Your task to perform on an android device: Go to Google maps Image 0: 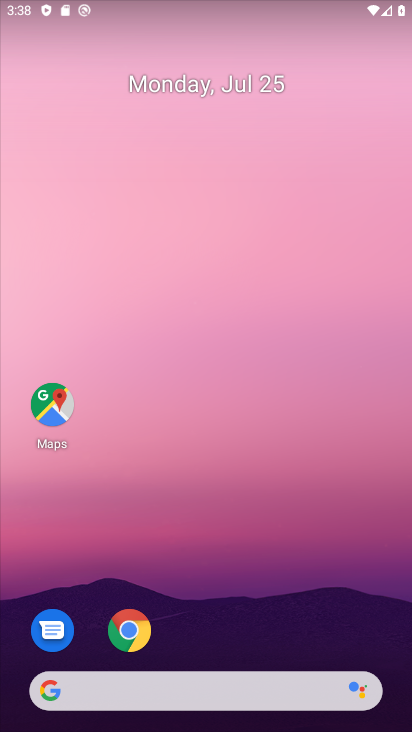
Step 0: drag from (229, 629) to (198, 108)
Your task to perform on an android device: Go to Google maps Image 1: 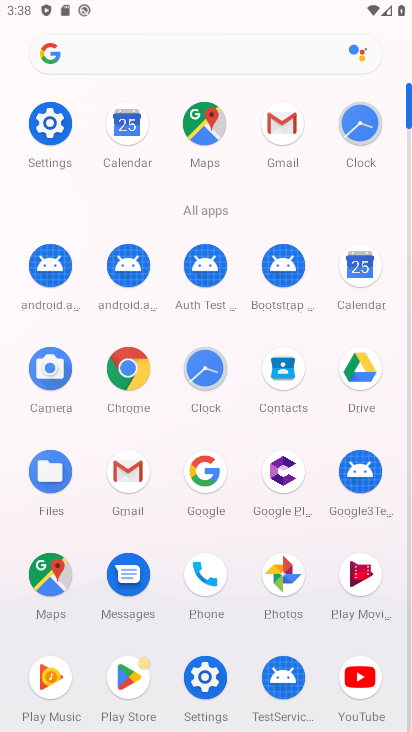
Step 1: click (196, 129)
Your task to perform on an android device: Go to Google maps Image 2: 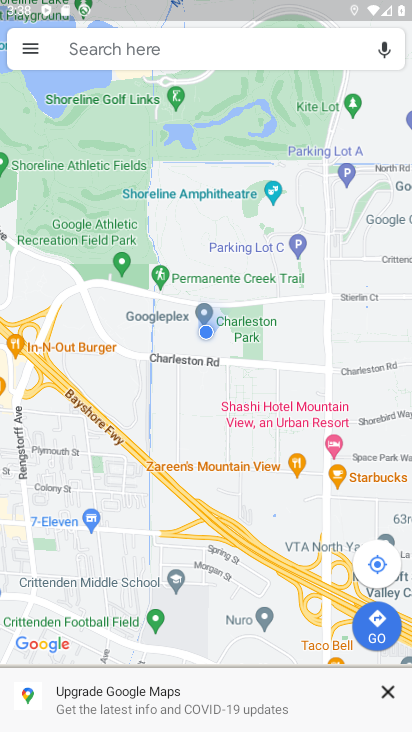
Step 2: task complete